Your task to perform on an android device: Open Android settings Image 0: 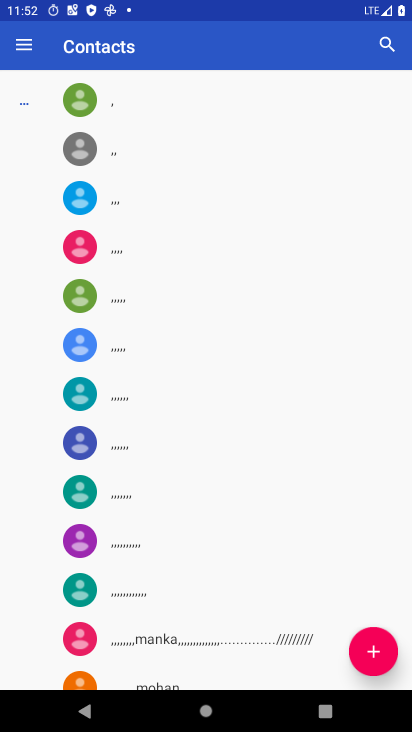
Step 0: press home button
Your task to perform on an android device: Open Android settings Image 1: 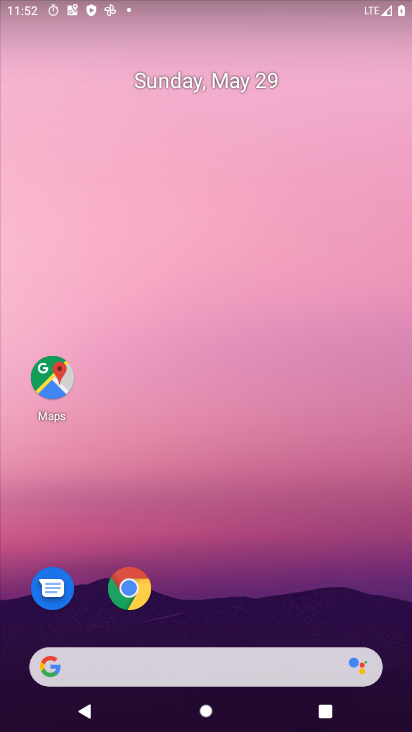
Step 1: drag from (258, 484) to (287, 165)
Your task to perform on an android device: Open Android settings Image 2: 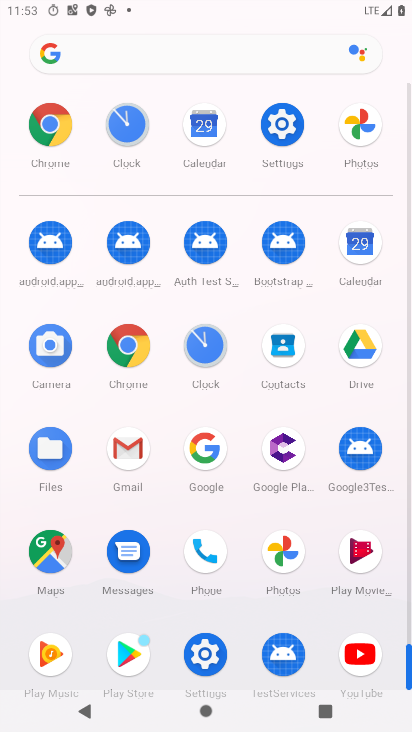
Step 2: click (208, 657)
Your task to perform on an android device: Open Android settings Image 3: 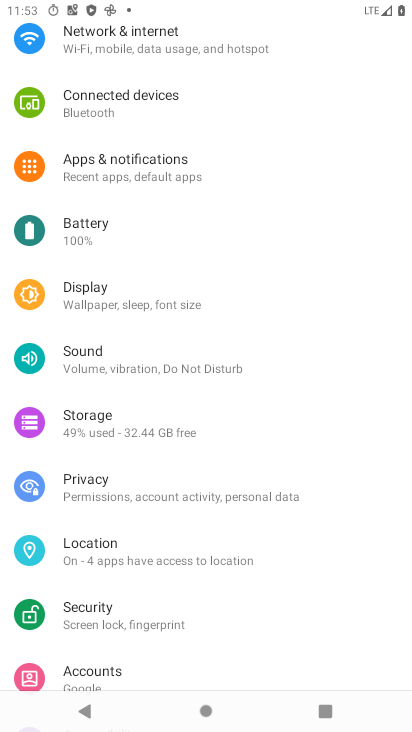
Step 3: task complete